Your task to perform on an android device: Open accessibility settings Image 0: 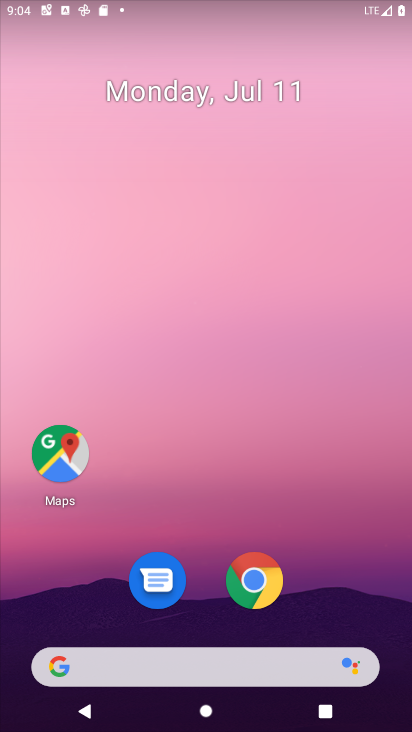
Step 0: drag from (331, 583) to (317, 20)
Your task to perform on an android device: Open accessibility settings Image 1: 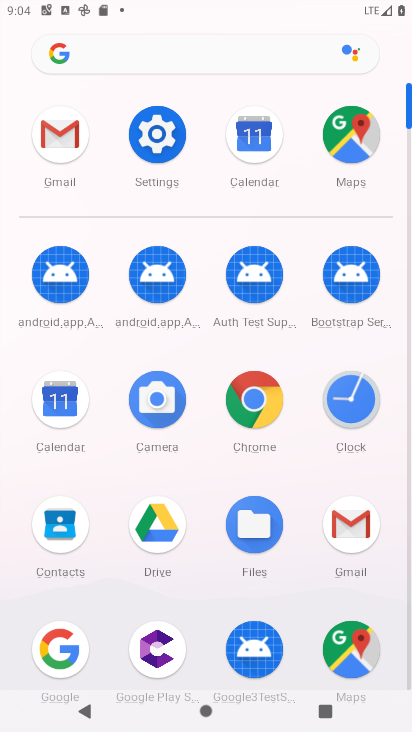
Step 1: click (174, 137)
Your task to perform on an android device: Open accessibility settings Image 2: 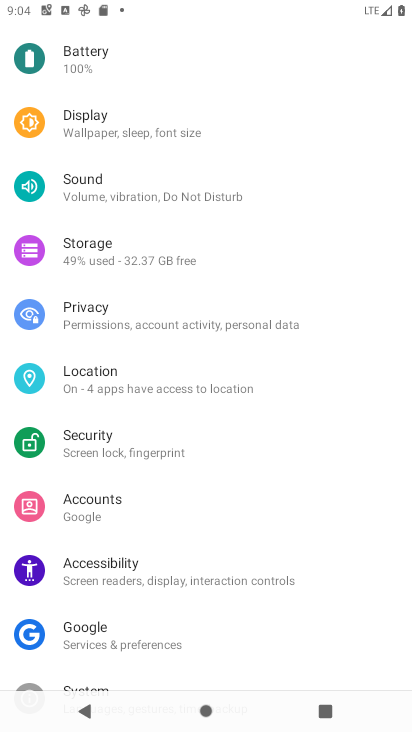
Step 2: click (202, 580)
Your task to perform on an android device: Open accessibility settings Image 3: 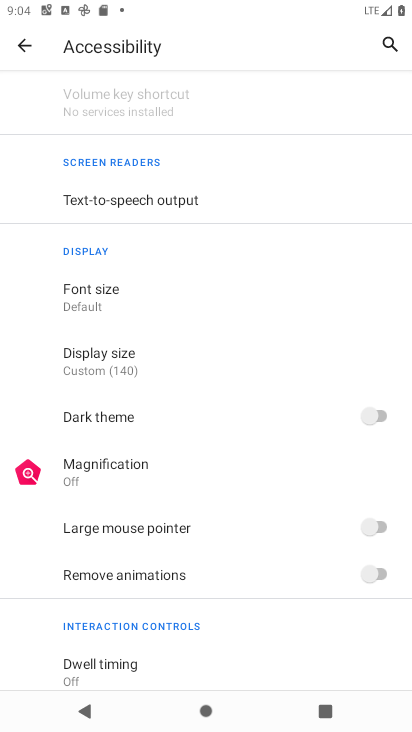
Step 3: task complete